Your task to perform on an android device: Open Chrome and go to the settings page Image 0: 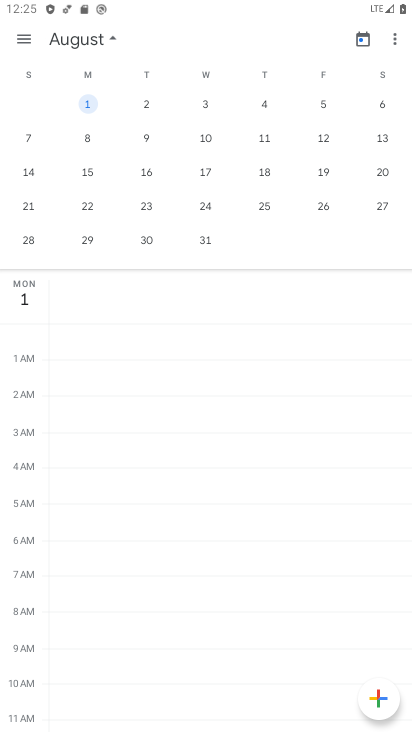
Step 0: press home button
Your task to perform on an android device: Open Chrome and go to the settings page Image 1: 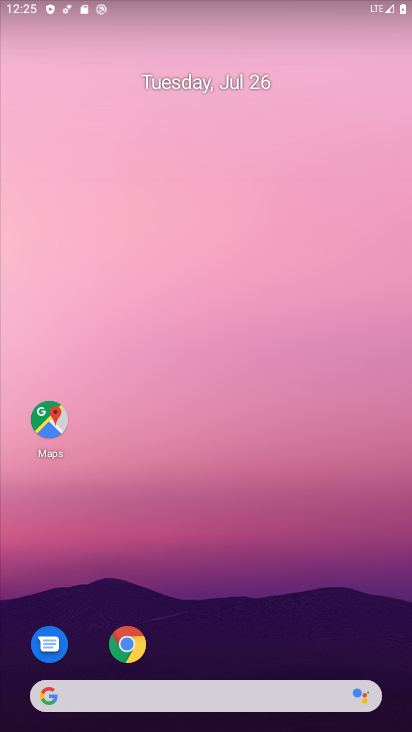
Step 1: click (131, 649)
Your task to perform on an android device: Open Chrome and go to the settings page Image 2: 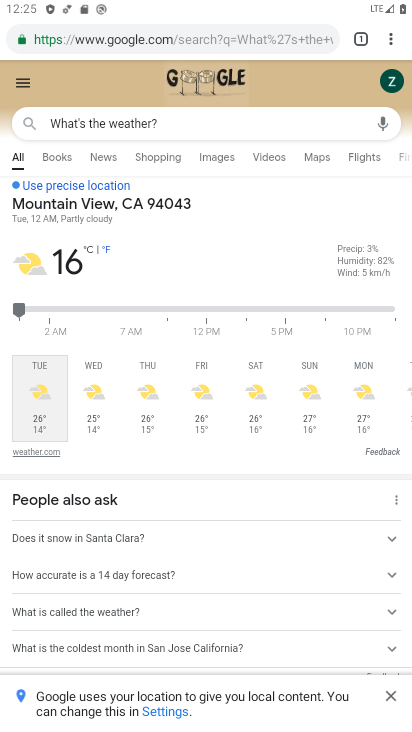
Step 2: click (387, 40)
Your task to perform on an android device: Open Chrome and go to the settings page Image 3: 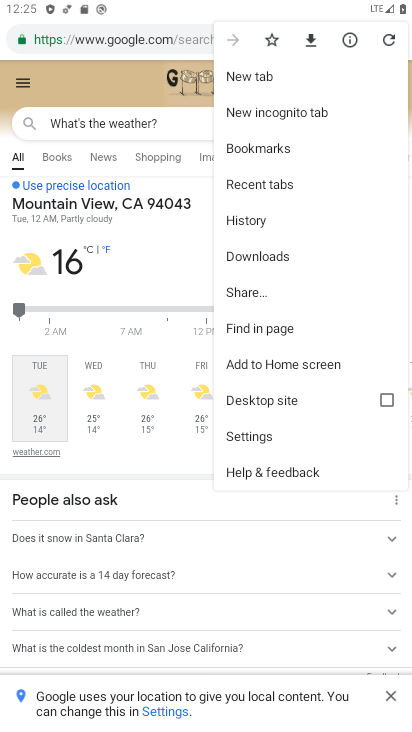
Step 3: click (279, 439)
Your task to perform on an android device: Open Chrome and go to the settings page Image 4: 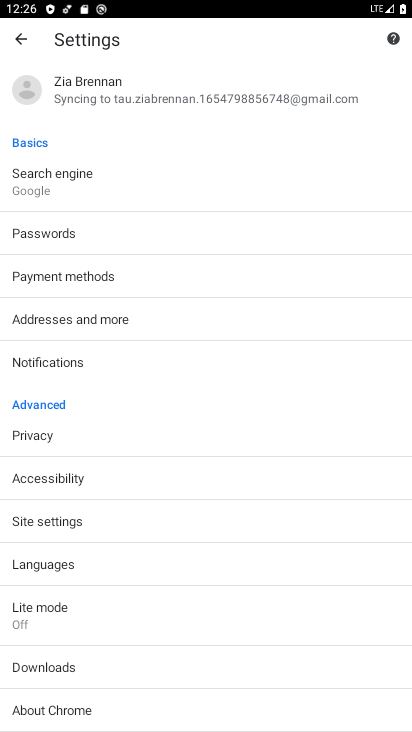
Step 4: task complete